Your task to perform on an android device: Show me the alarms in the clock app Image 0: 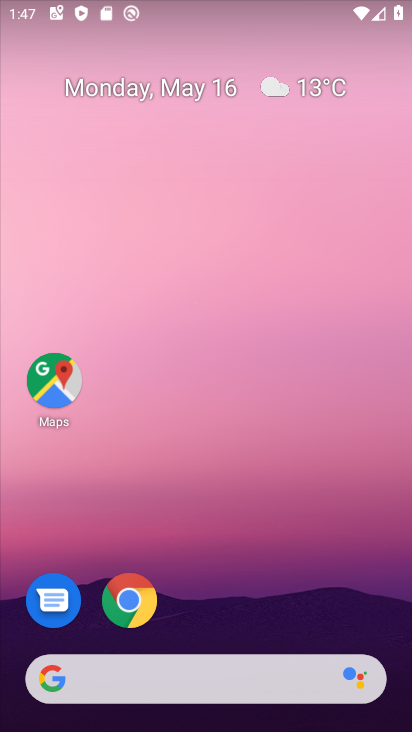
Step 0: drag from (272, 578) to (270, 63)
Your task to perform on an android device: Show me the alarms in the clock app Image 1: 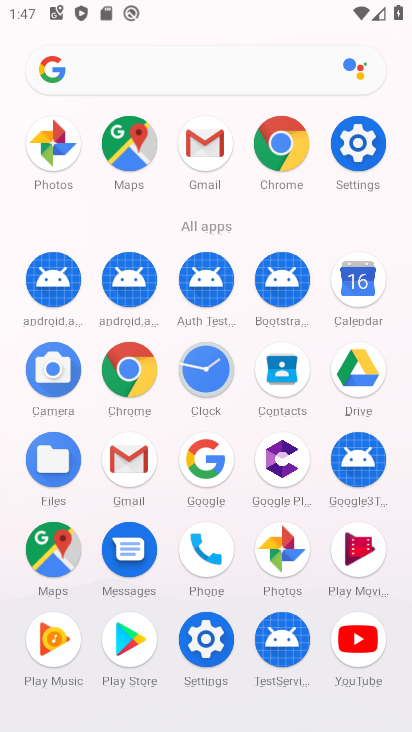
Step 1: click (218, 364)
Your task to perform on an android device: Show me the alarms in the clock app Image 2: 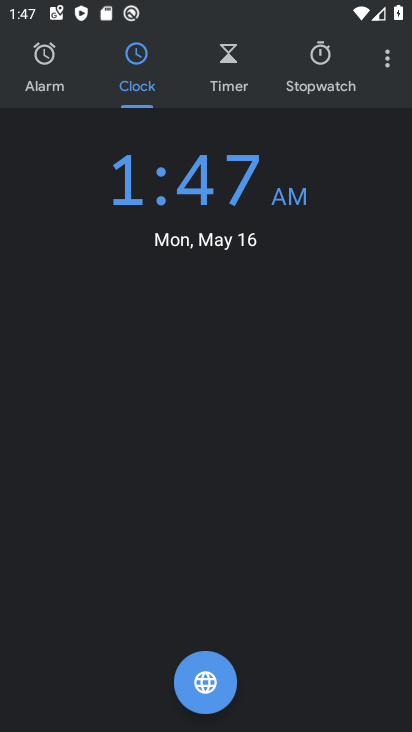
Step 2: click (39, 54)
Your task to perform on an android device: Show me the alarms in the clock app Image 3: 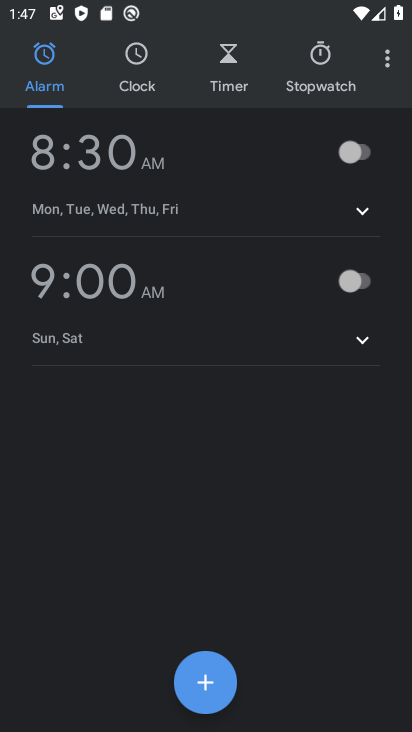
Step 3: task complete